Your task to perform on an android device: Go to Wikipedia Image 0: 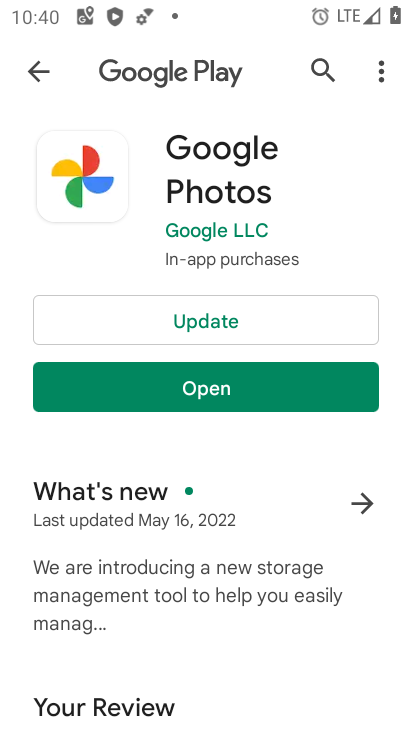
Step 0: press home button
Your task to perform on an android device: Go to Wikipedia Image 1: 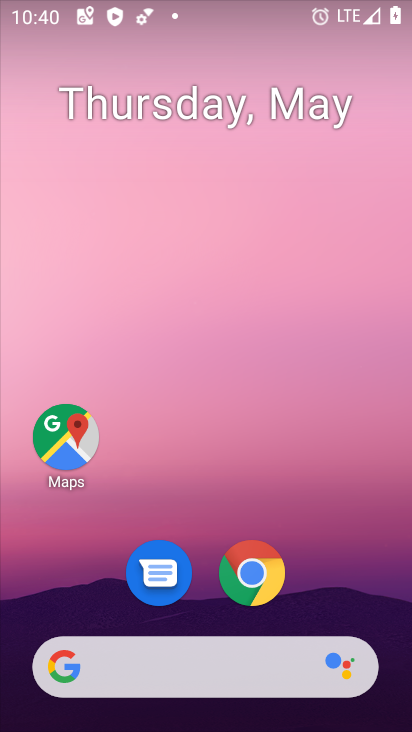
Step 1: click (239, 563)
Your task to perform on an android device: Go to Wikipedia Image 2: 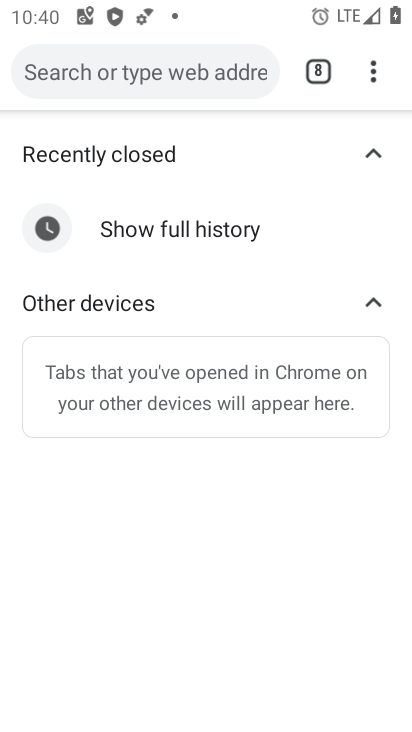
Step 2: click (178, 62)
Your task to perform on an android device: Go to Wikipedia Image 3: 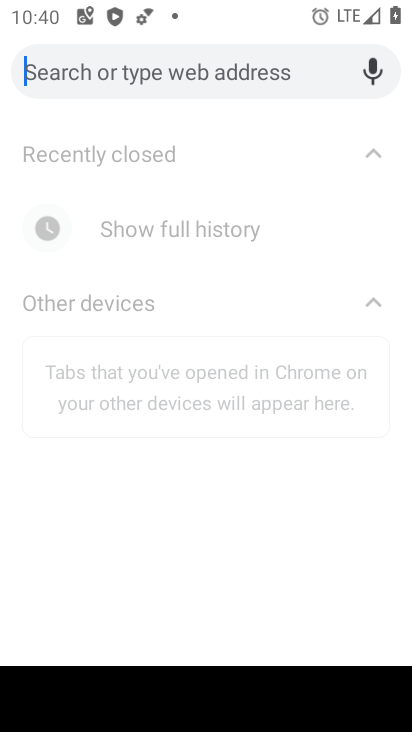
Step 3: type "Wikipedia"
Your task to perform on an android device: Go to Wikipedia Image 4: 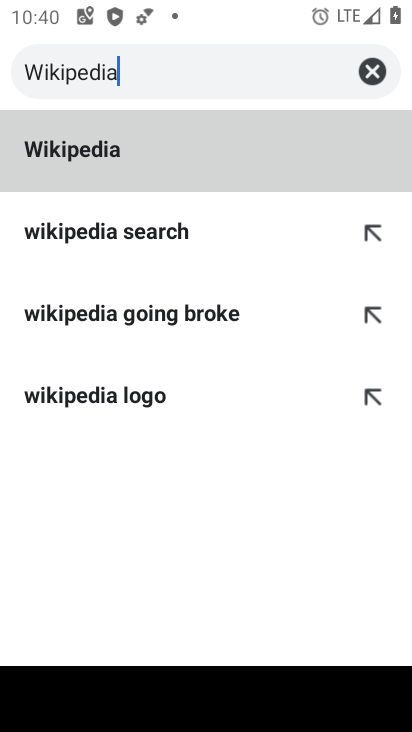
Step 4: click (169, 153)
Your task to perform on an android device: Go to Wikipedia Image 5: 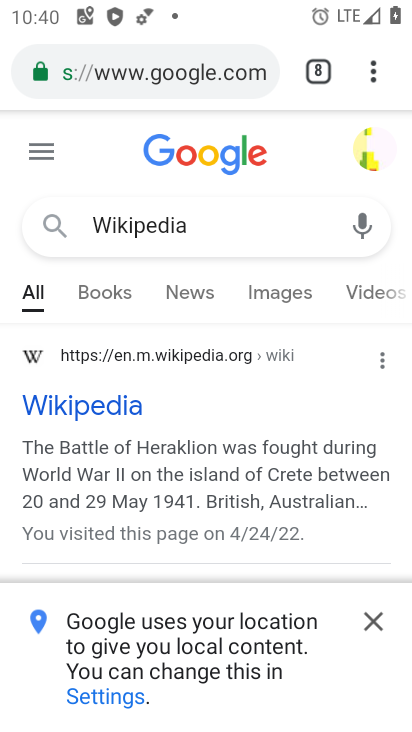
Step 5: click (56, 389)
Your task to perform on an android device: Go to Wikipedia Image 6: 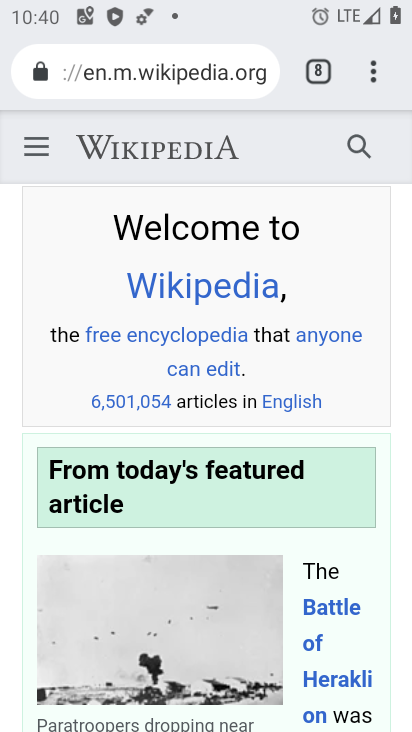
Step 6: task complete